Your task to perform on an android device: Open the web browser Image 0: 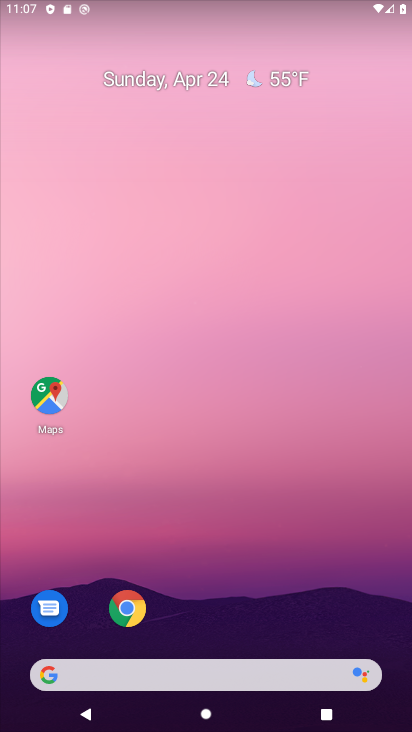
Step 0: click (125, 607)
Your task to perform on an android device: Open the web browser Image 1: 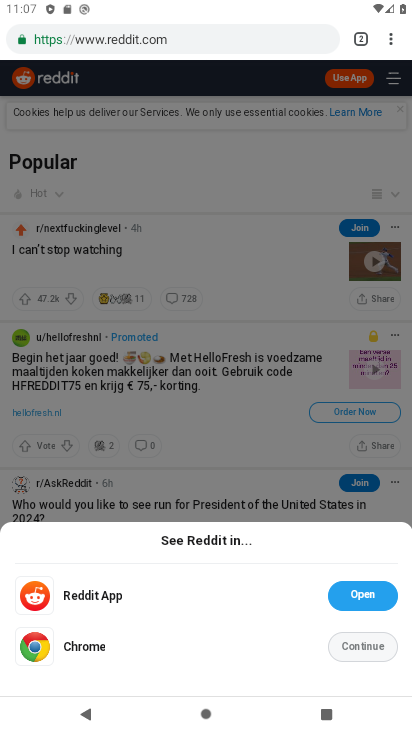
Step 1: task complete